Your task to perform on an android device: Go to Yahoo.com Image 0: 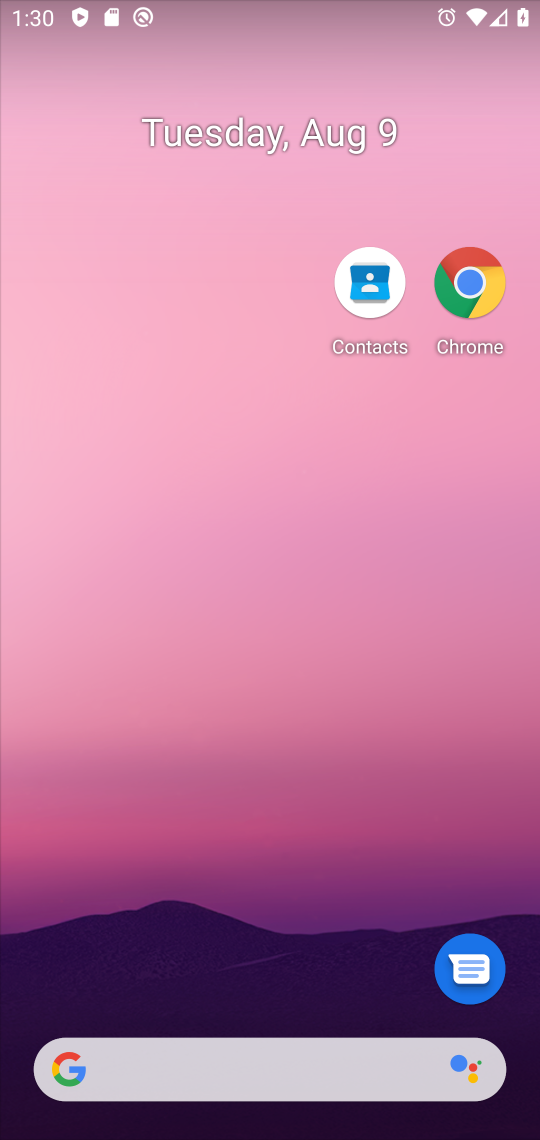
Step 0: drag from (230, 775) to (261, 397)
Your task to perform on an android device: Go to Yahoo.com Image 1: 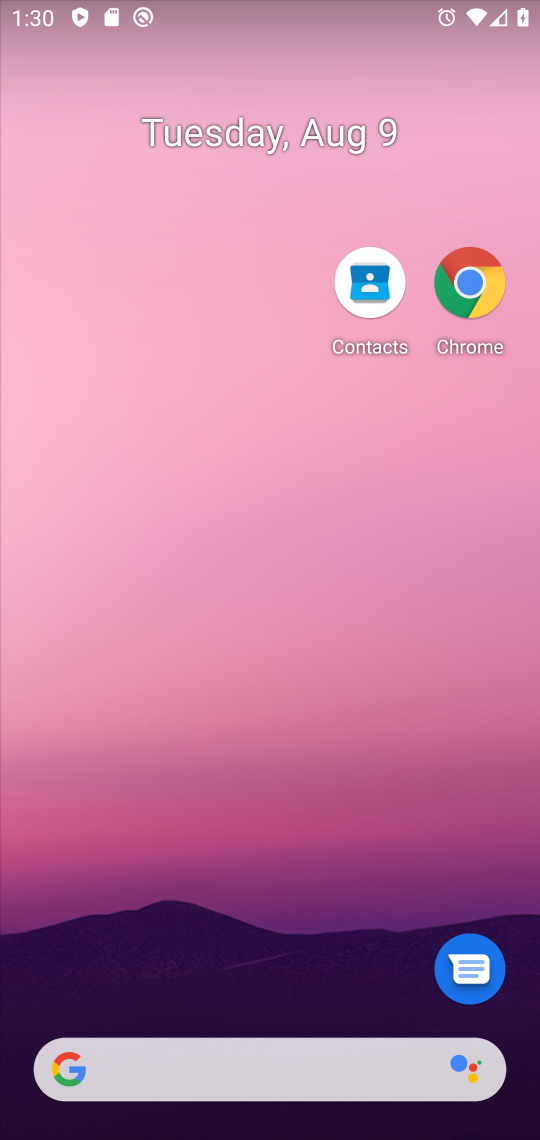
Step 1: drag from (258, 899) to (425, 403)
Your task to perform on an android device: Go to Yahoo.com Image 2: 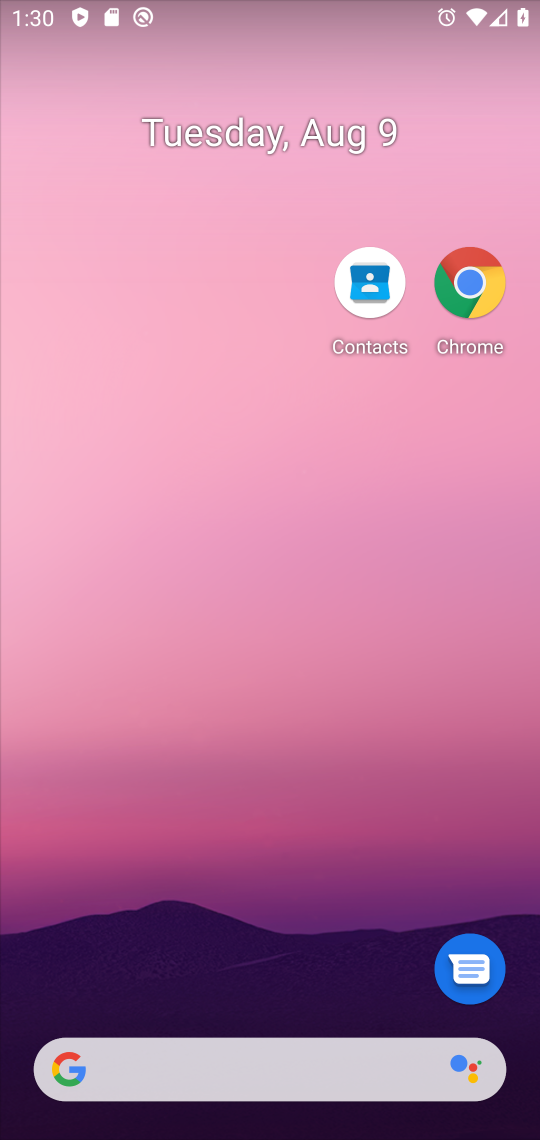
Step 2: drag from (295, 671) to (386, 32)
Your task to perform on an android device: Go to Yahoo.com Image 3: 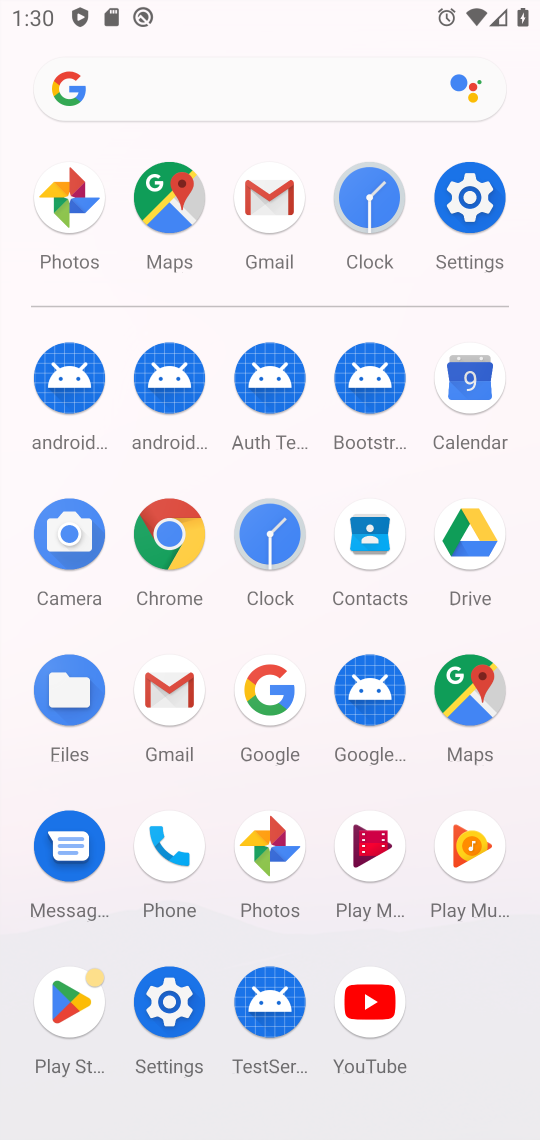
Step 3: click (235, 83)
Your task to perform on an android device: Go to Yahoo.com Image 4: 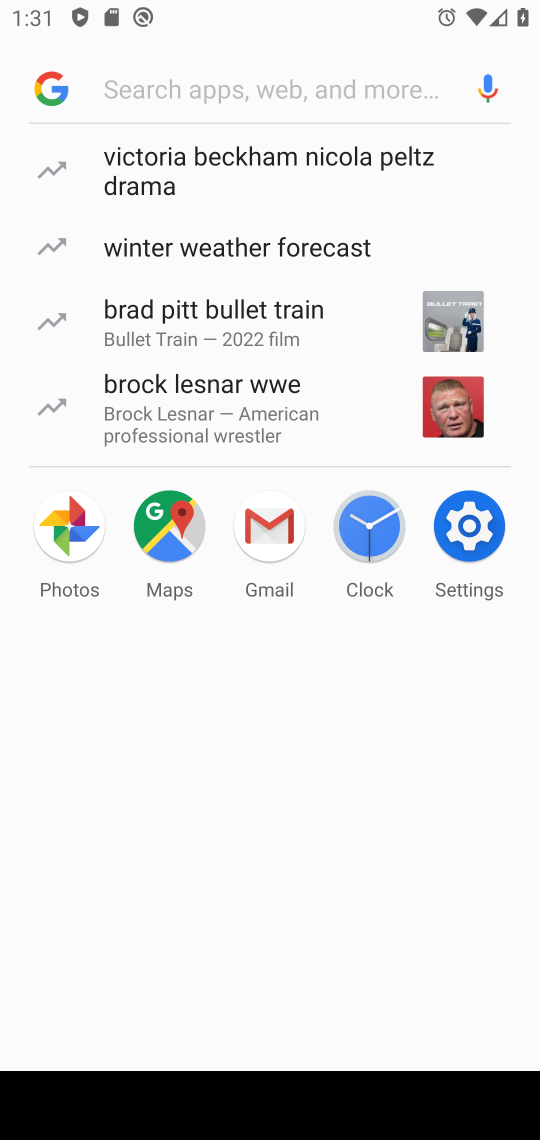
Step 4: type "Yahoo.com"
Your task to perform on an android device: Go to Yahoo.com Image 5: 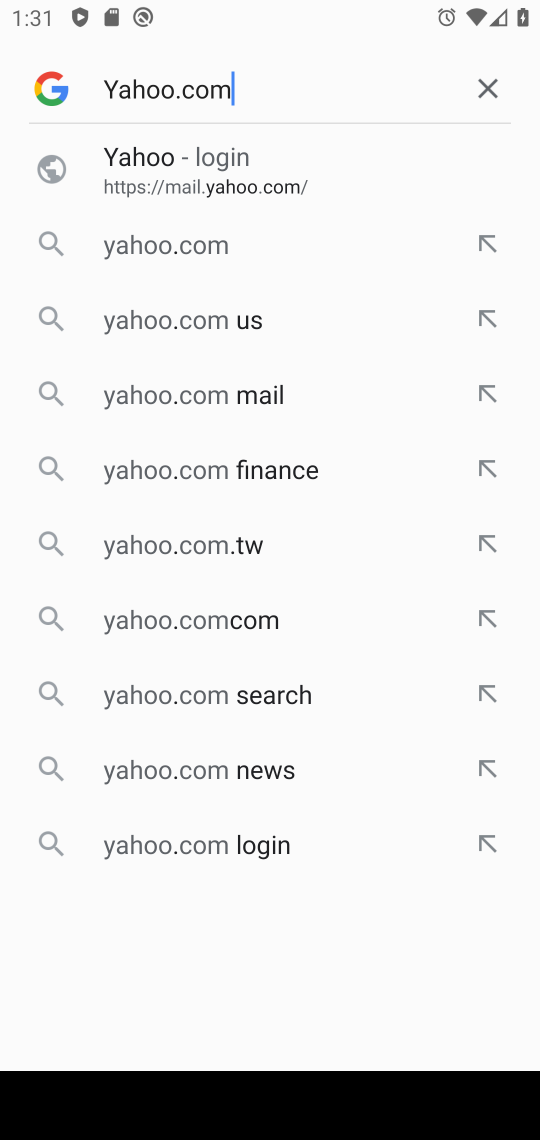
Step 5: click (234, 162)
Your task to perform on an android device: Go to Yahoo.com Image 6: 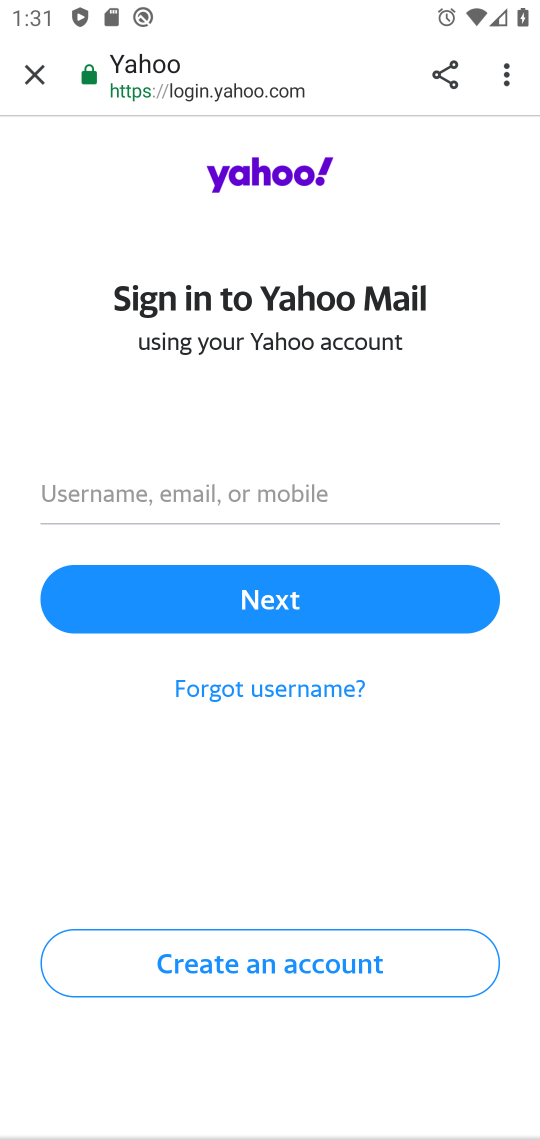
Step 6: task complete